Your task to perform on an android device: refresh tabs in the chrome app Image 0: 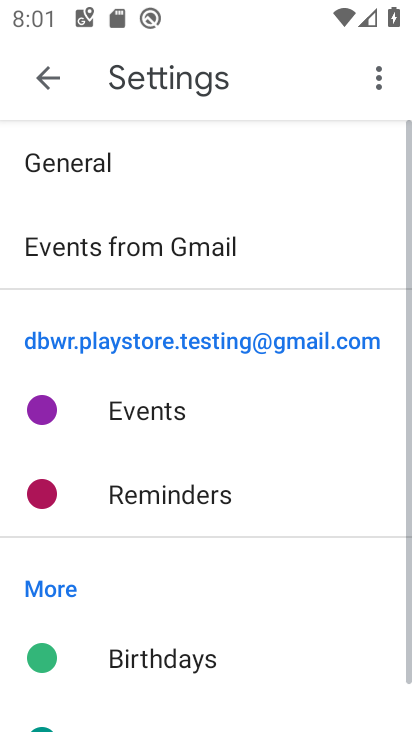
Step 0: click (349, 577)
Your task to perform on an android device: refresh tabs in the chrome app Image 1: 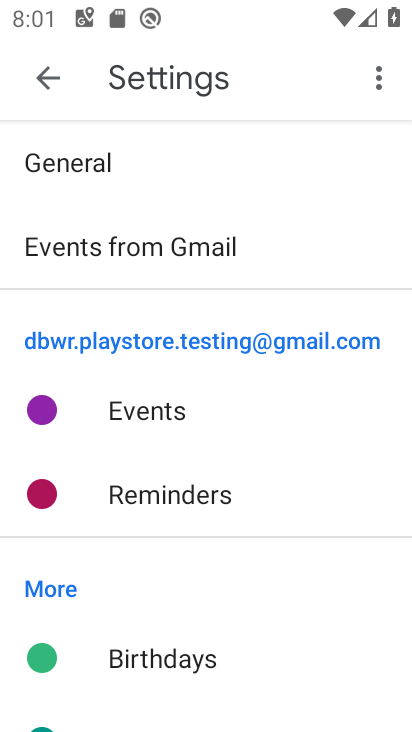
Step 1: press home button
Your task to perform on an android device: refresh tabs in the chrome app Image 2: 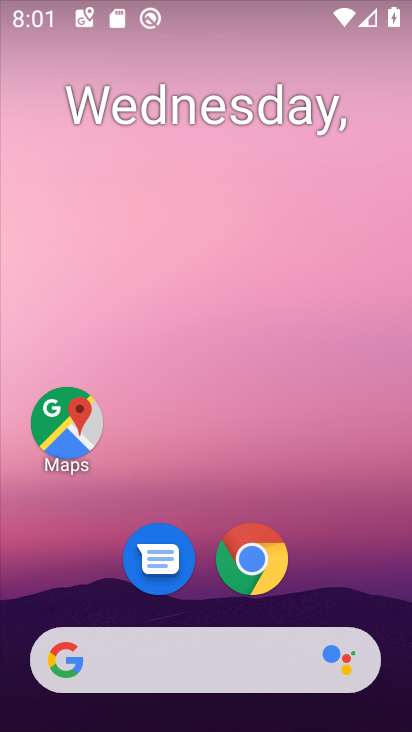
Step 2: drag from (321, 388) to (320, 128)
Your task to perform on an android device: refresh tabs in the chrome app Image 3: 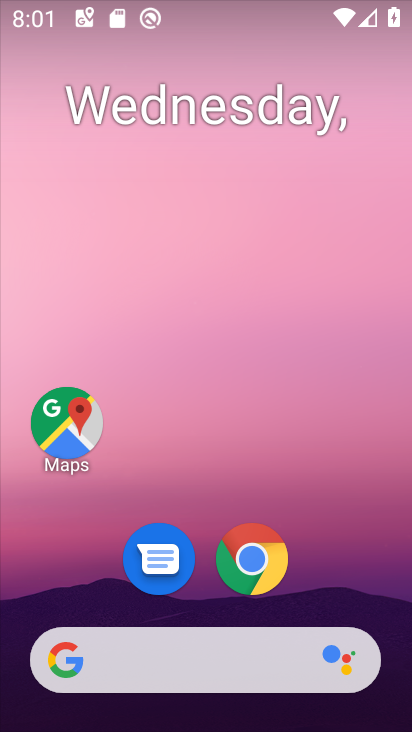
Step 3: drag from (374, 489) to (364, 141)
Your task to perform on an android device: refresh tabs in the chrome app Image 4: 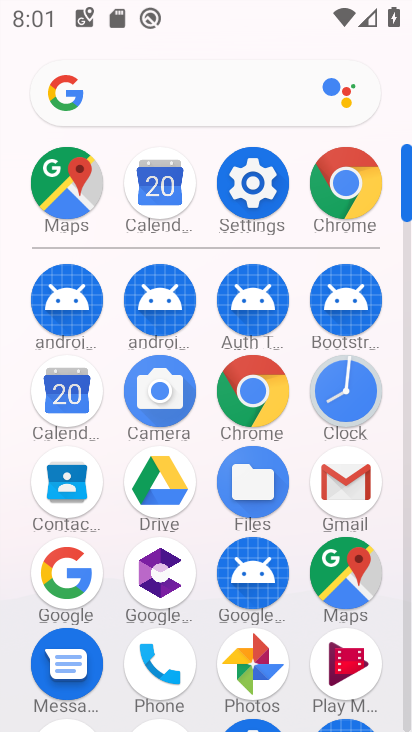
Step 4: click (335, 203)
Your task to perform on an android device: refresh tabs in the chrome app Image 5: 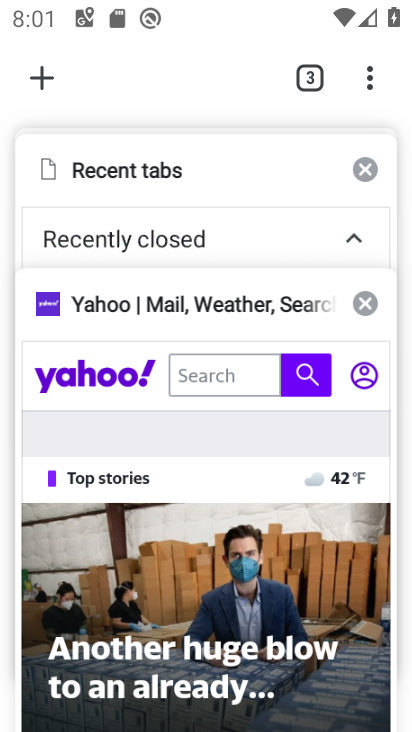
Step 5: click (42, 74)
Your task to perform on an android device: refresh tabs in the chrome app Image 6: 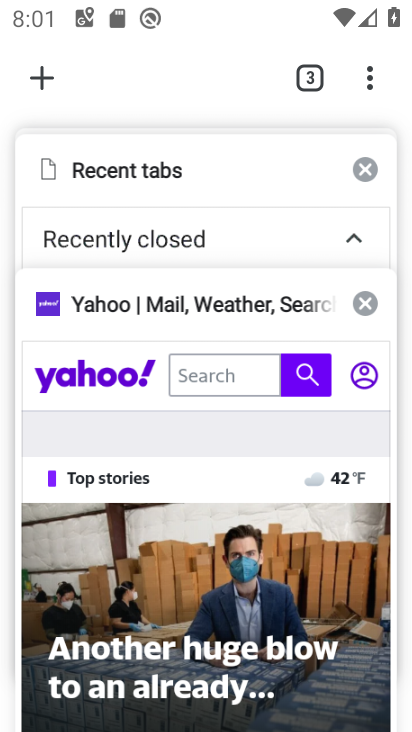
Step 6: click (46, 67)
Your task to perform on an android device: refresh tabs in the chrome app Image 7: 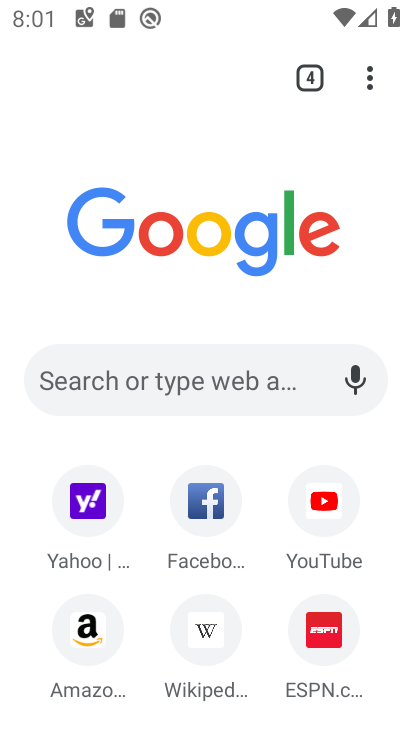
Step 7: click (371, 88)
Your task to perform on an android device: refresh tabs in the chrome app Image 8: 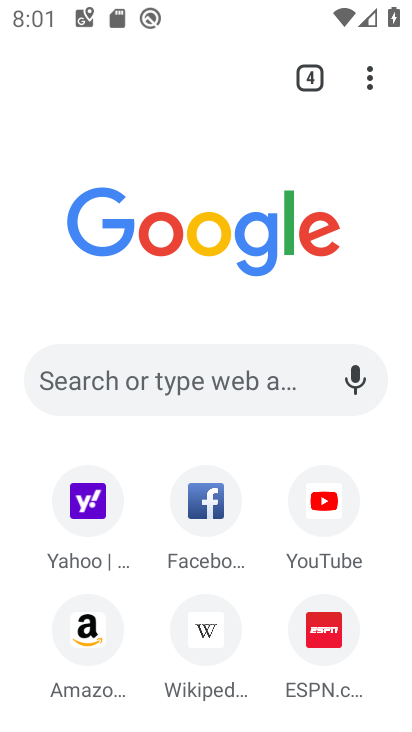
Step 8: task complete